Your task to perform on an android device: open the mobile data screen to see how much data has been used Image 0: 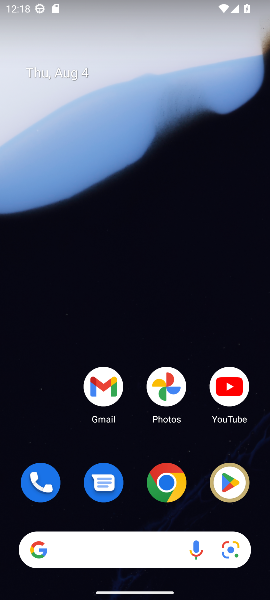
Step 0: drag from (140, 454) to (141, 262)
Your task to perform on an android device: open the mobile data screen to see how much data has been used Image 1: 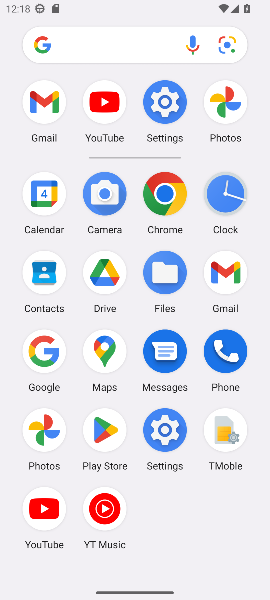
Step 1: click (164, 106)
Your task to perform on an android device: open the mobile data screen to see how much data has been used Image 2: 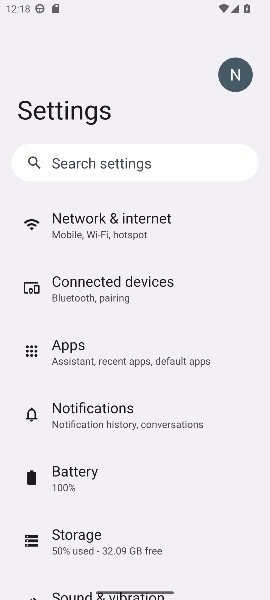
Step 2: click (122, 211)
Your task to perform on an android device: open the mobile data screen to see how much data has been used Image 3: 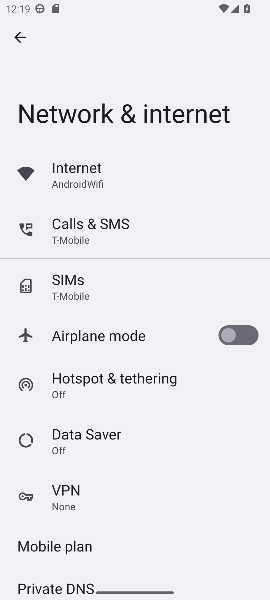
Step 3: click (120, 191)
Your task to perform on an android device: open the mobile data screen to see how much data has been used Image 4: 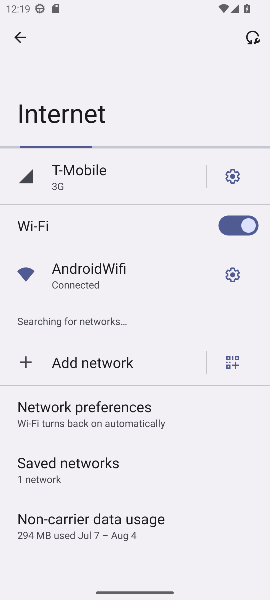
Step 4: drag from (120, 475) to (145, 335)
Your task to perform on an android device: open the mobile data screen to see how much data has been used Image 5: 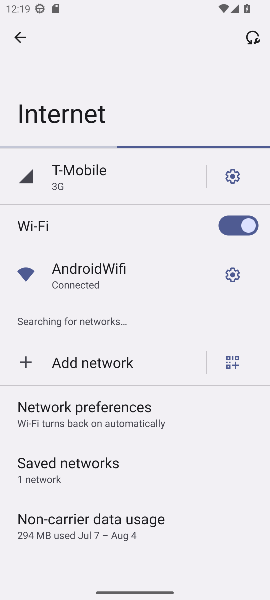
Step 5: click (104, 401)
Your task to perform on an android device: open the mobile data screen to see how much data has been used Image 6: 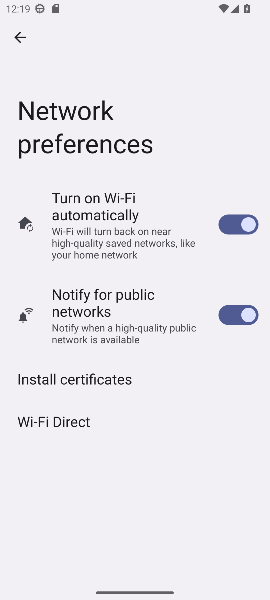
Step 6: click (19, 41)
Your task to perform on an android device: open the mobile data screen to see how much data has been used Image 7: 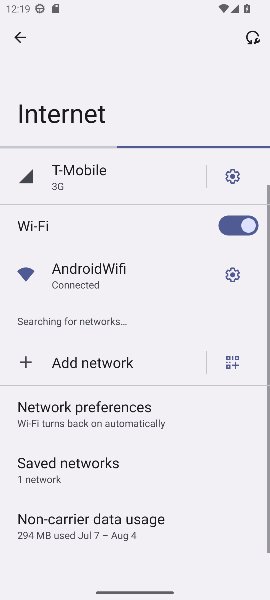
Step 7: click (19, 41)
Your task to perform on an android device: open the mobile data screen to see how much data has been used Image 8: 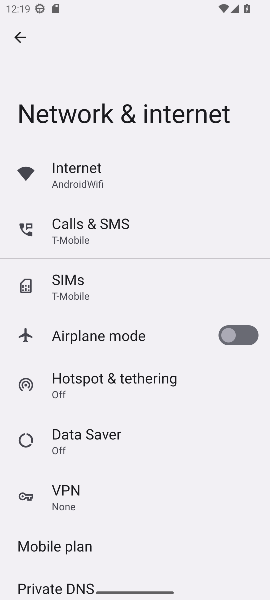
Step 8: click (99, 444)
Your task to perform on an android device: open the mobile data screen to see how much data has been used Image 9: 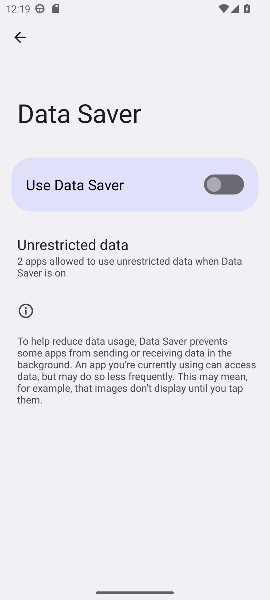
Step 9: task complete